Your task to perform on an android device: Open Amazon Image 0: 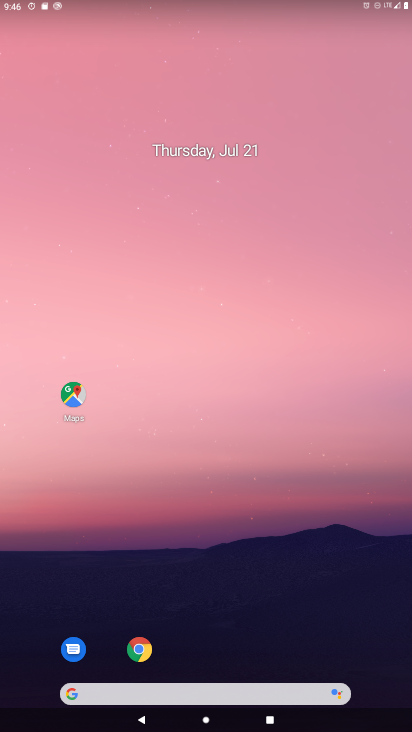
Step 0: drag from (344, 648) to (72, 36)
Your task to perform on an android device: Open Amazon Image 1: 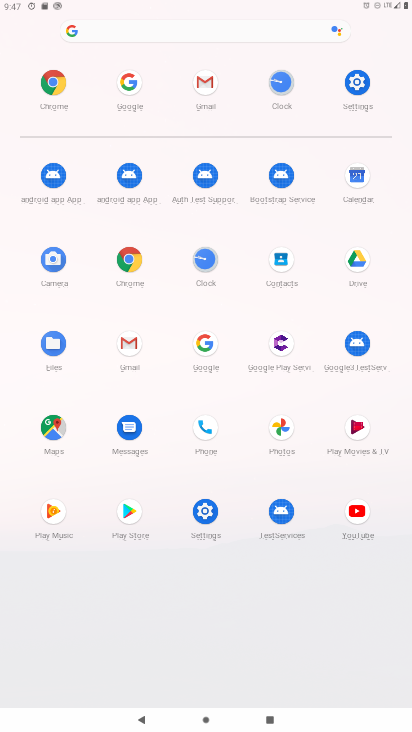
Step 1: click (193, 353)
Your task to perform on an android device: Open Amazon Image 2: 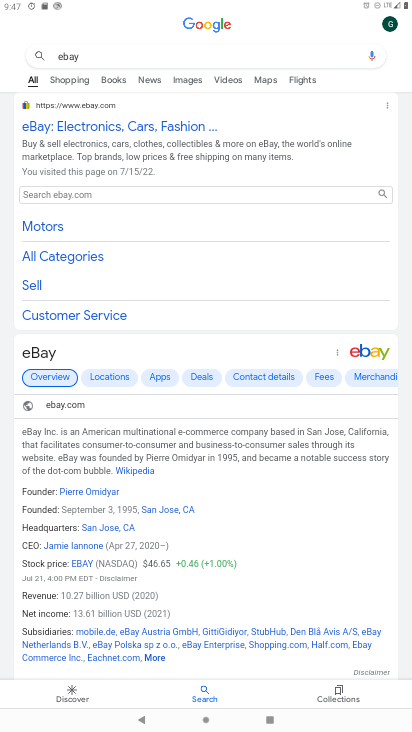
Step 2: press back button
Your task to perform on an android device: Open Amazon Image 3: 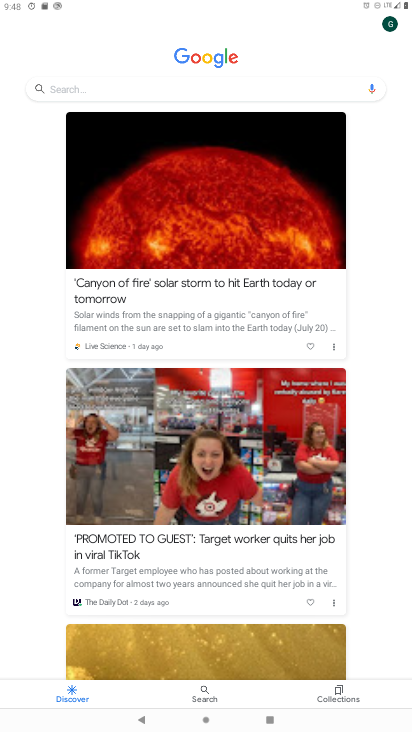
Step 3: click (61, 81)
Your task to perform on an android device: Open Amazon Image 4: 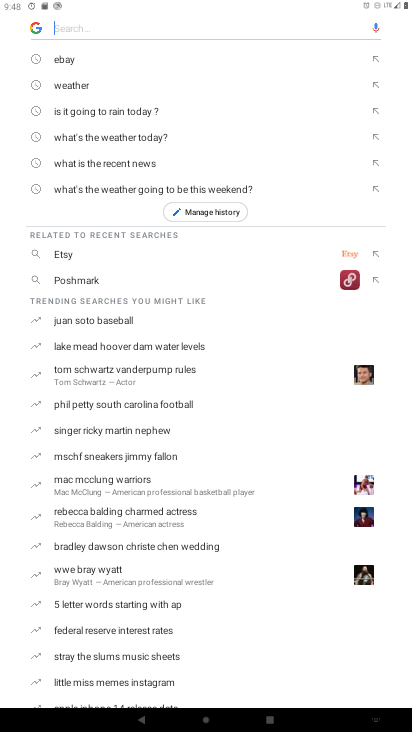
Step 4: type "Amazon"
Your task to perform on an android device: Open Amazon Image 5: 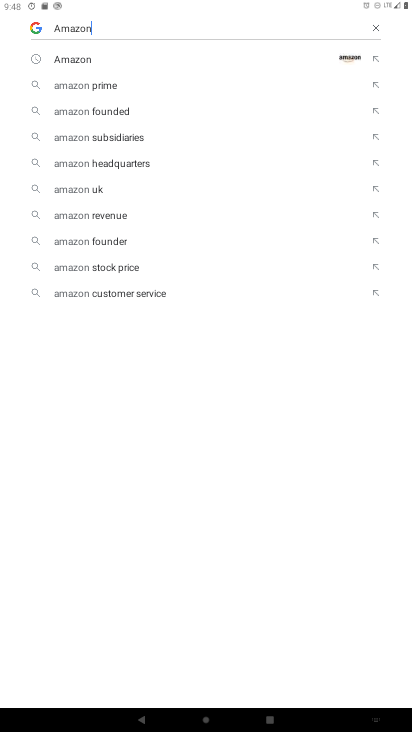
Step 5: click (89, 67)
Your task to perform on an android device: Open Amazon Image 6: 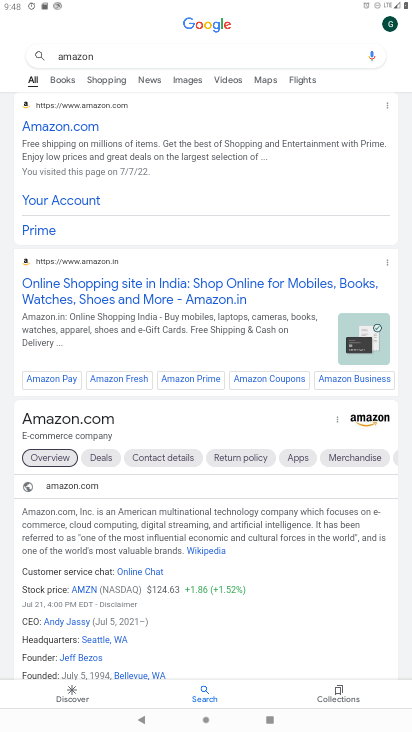
Step 6: task complete